Your task to perform on an android device: make emails show in primary in the gmail app Image 0: 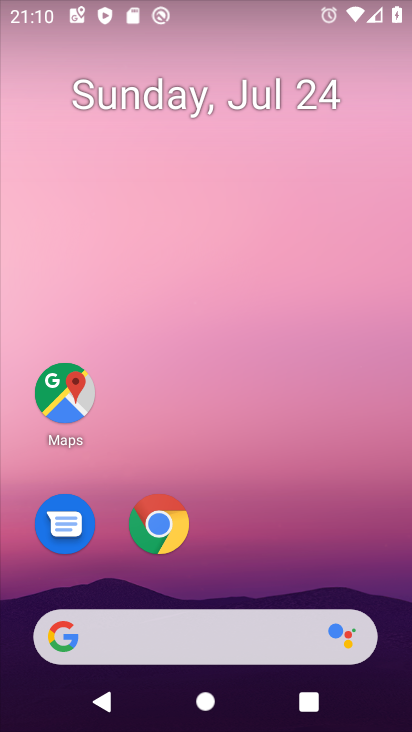
Step 0: drag from (274, 531) to (271, 27)
Your task to perform on an android device: make emails show in primary in the gmail app Image 1: 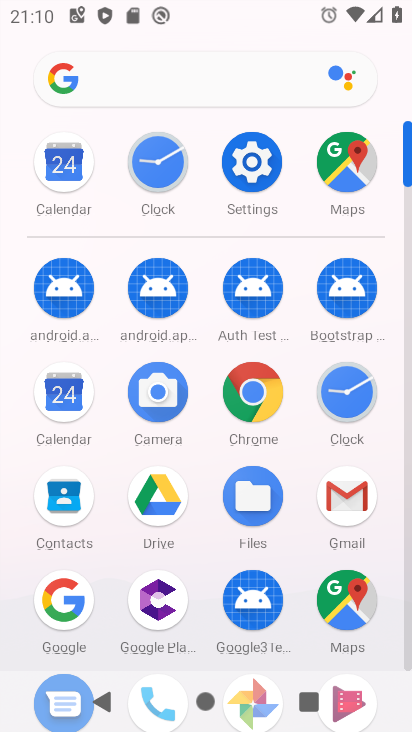
Step 1: drag from (209, 539) to (242, 211)
Your task to perform on an android device: make emails show in primary in the gmail app Image 2: 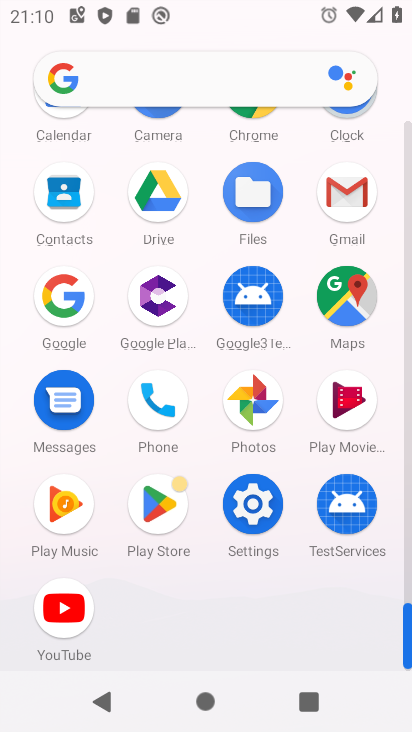
Step 2: click (340, 199)
Your task to perform on an android device: make emails show in primary in the gmail app Image 3: 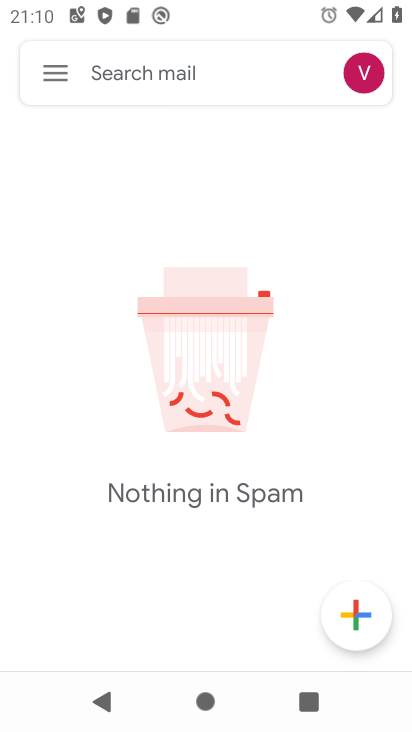
Step 3: click (53, 64)
Your task to perform on an android device: make emails show in primary in the gmail app Image 4: 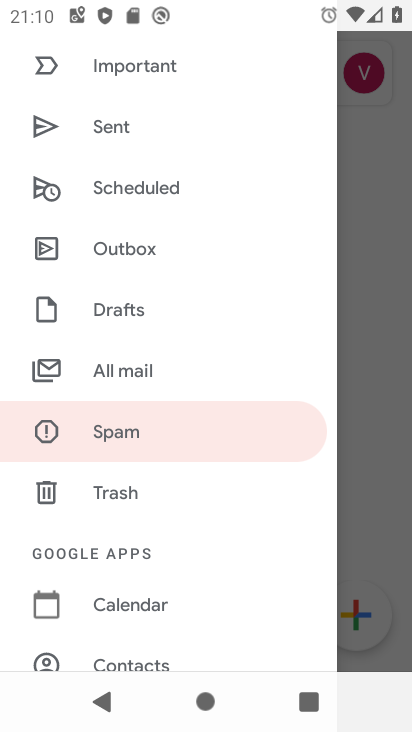
Step 4: drag from (145, 507) to (173, 120)
Your task to perform on an android device: make emails show in primary in the gmail app Image 5: 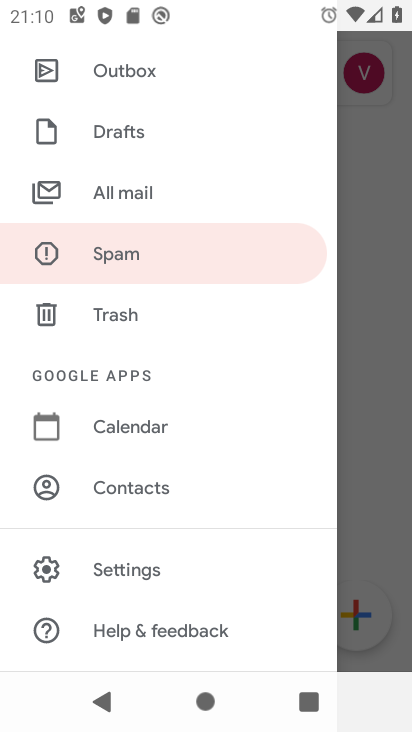
Step 5: click (123, 560)
Your task to perform on an android device: make emails show in primary in the gmail app Image 6: 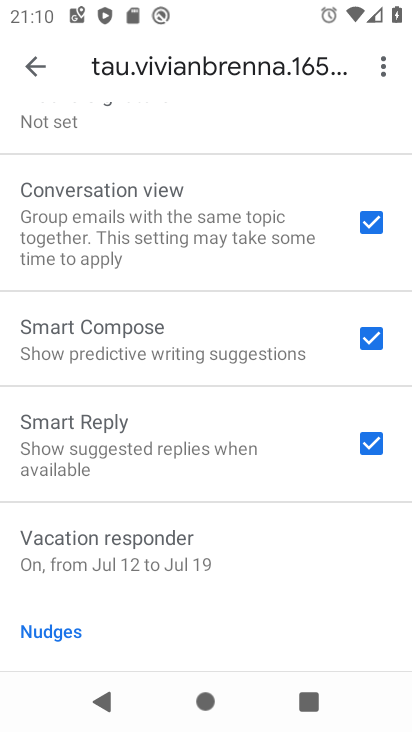
Step 6: drag from (271, 556) to (254, 118)
Your task to perform on an android device: make emails show in primary in the gmail app Image 7: 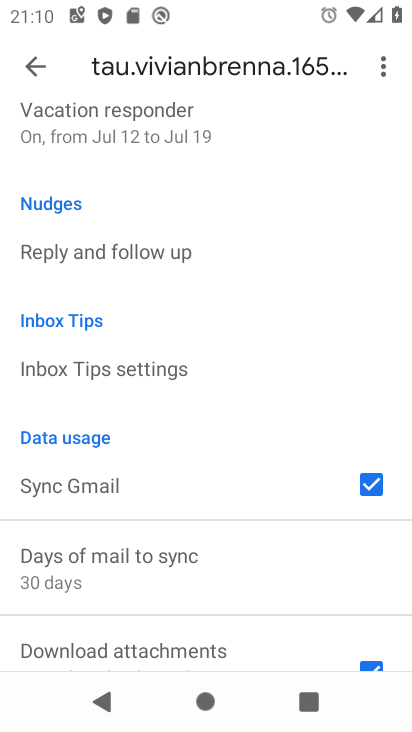
Step 7: drag from (210, 166) to (225, 576)
Your task to perform on an android device: make emails show in primary in the gmail app Image 8: 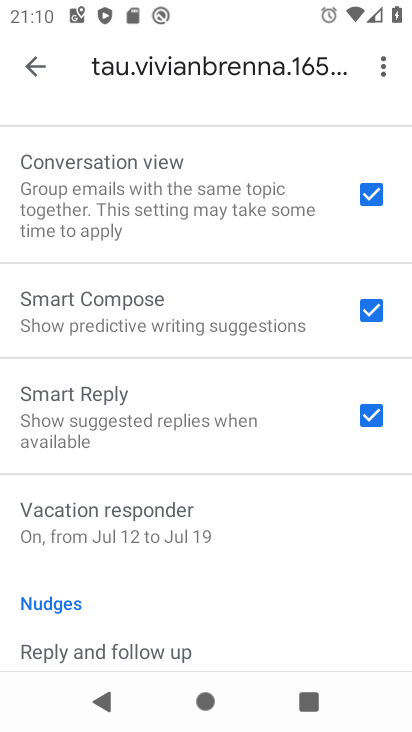
Step 8: drag from (236, 191) to (258, 628)
Your task to perform on an android device: make emails show in primary in the gmail app Image 9: 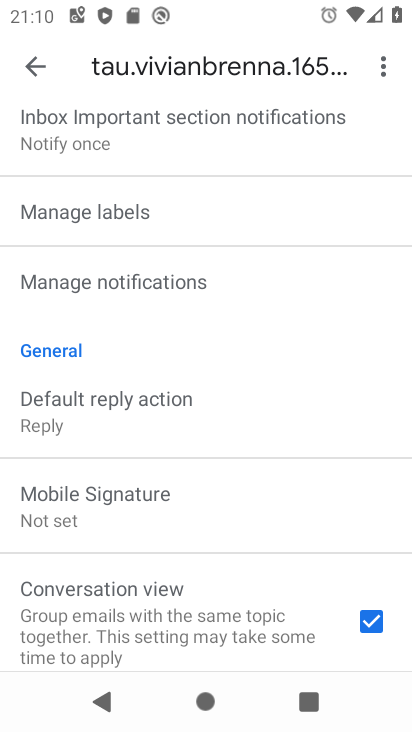
Step 9: drag from (230, 212) to (240, 588)
Your task to perform on an android device: make emails show in primary in the gmail app Image 10: 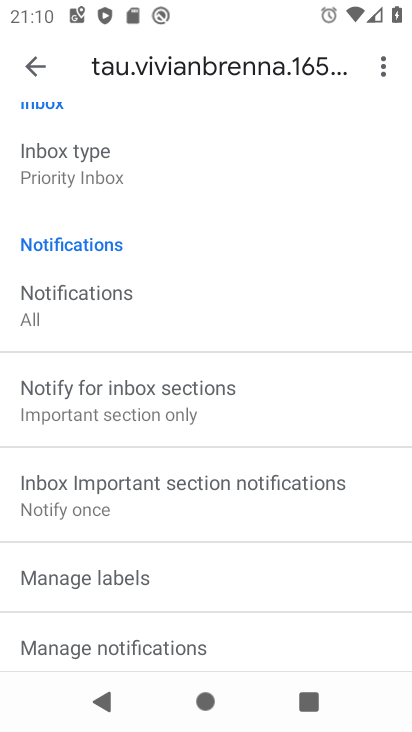
Step 10: drag from (230, 226) to (256, 583)
Your task to perform on an android device: make emails show in primary in the gmail app Image 11: 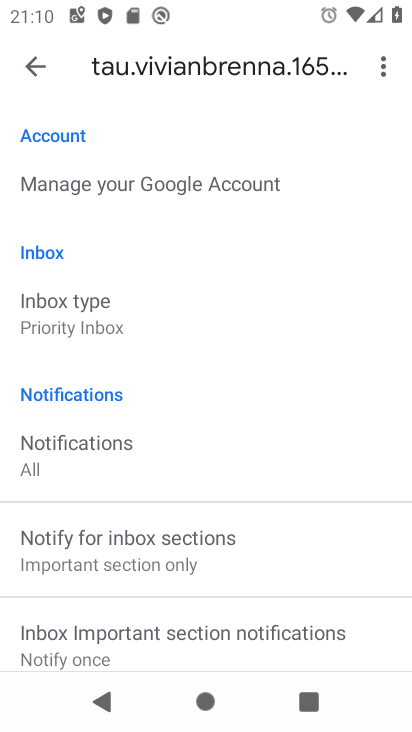
Step 11: click (94, 312)
Your task to perform on an android device: make emails show in primary in the gmail app Image 12: 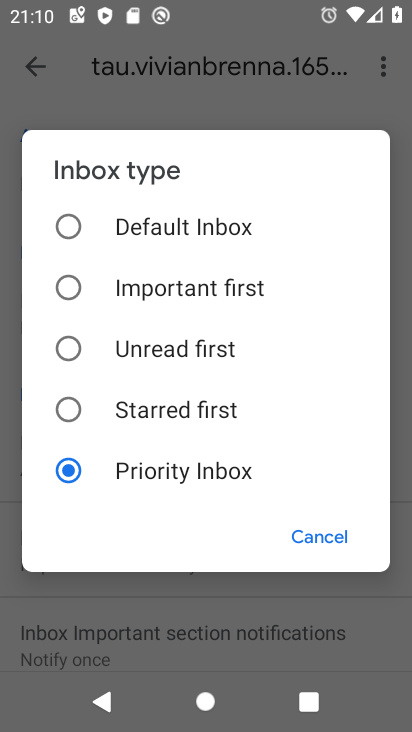
Step 12: click (74, 227)
Your task to perform on an android device: make emails show in primary in the gmail app Image 13: 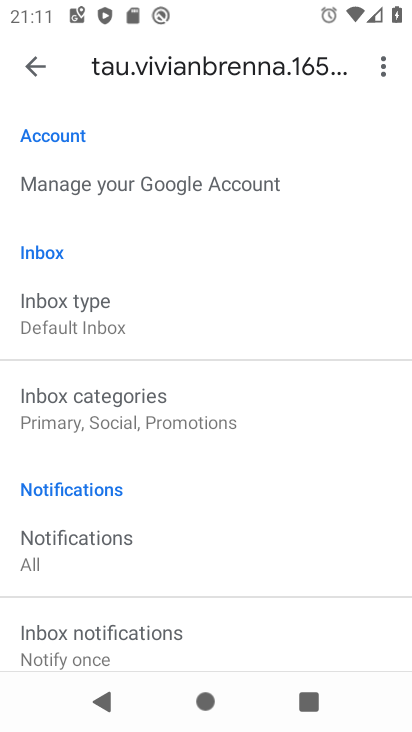
Step 13: click (82, 418)
Your task to perform on an android device: make emails show in primary in the gmail app Image 14: 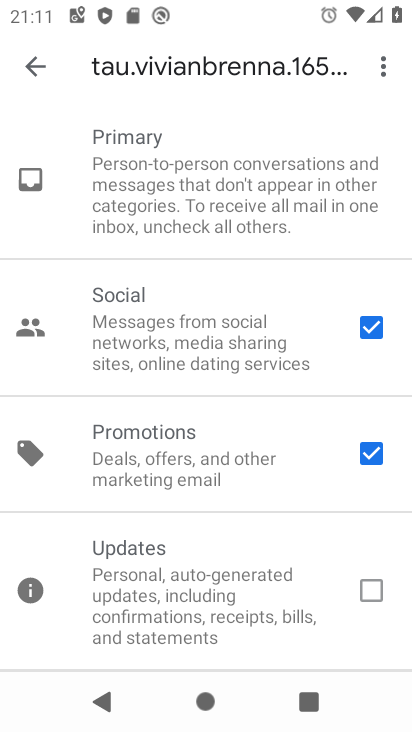
Step 14: click (363, 329)
Your task to perform on an android device: make emails show in primary in the gmail app Image 15: 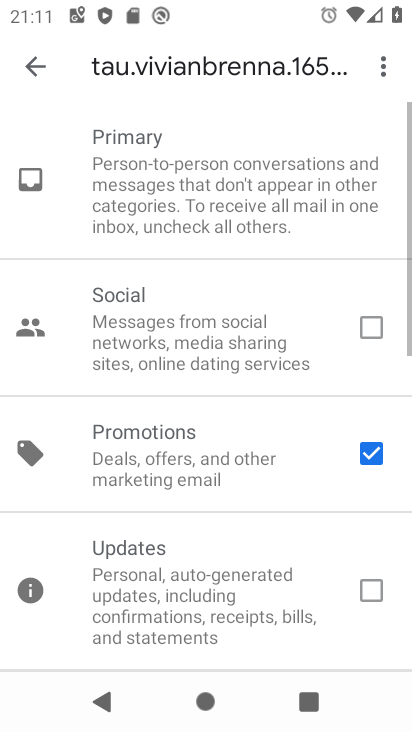
Step 15: click (368, 446)
Your task to perform on an android device: make emails show in primary in the gmail app Image 16: 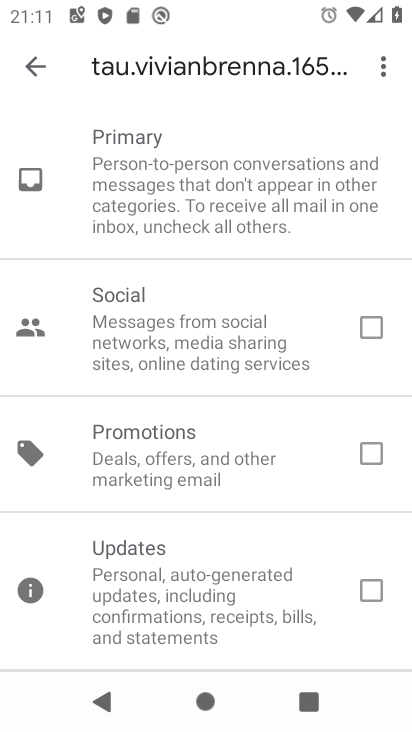
Step 16: click (29, 52)
Your task to perform on an android device: make emails show in primary in the gmail app Image 17: 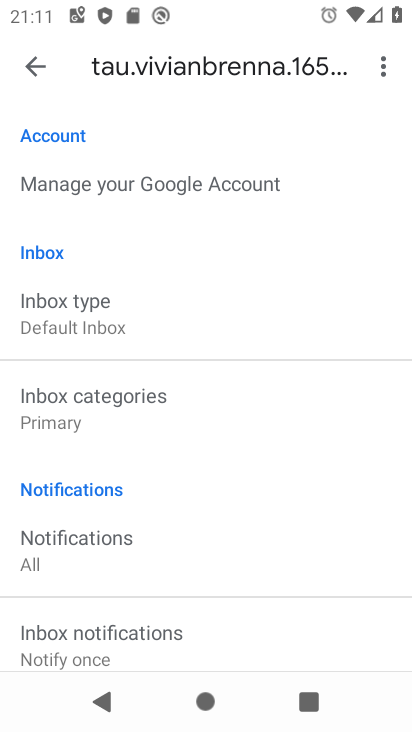
Step 17: click (32, 71)
Your task to perform on an android device: make emails show in primary in the gmail app Image 18: 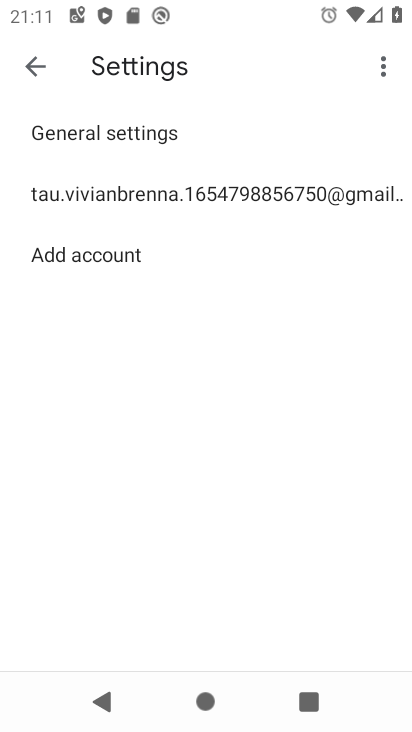
Step 18: click (28, 67)
Your task to perform on an android device: make emails show in primary in the gmail app Image 19: 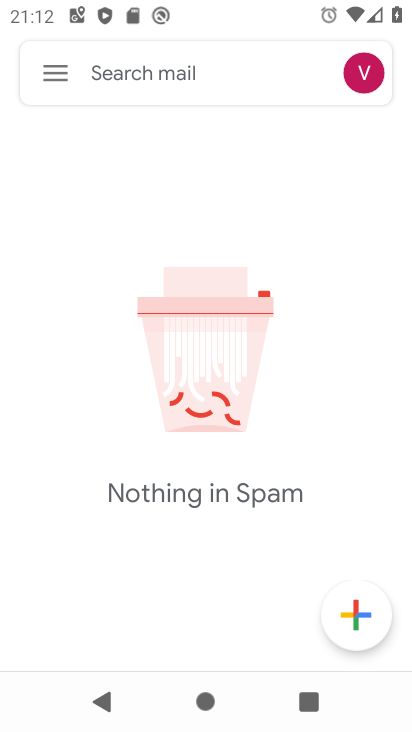
Step 19: task complete